Your task to perform on an android device: Open Google Chrome and click the shortcut for Amazon.com Image 0: 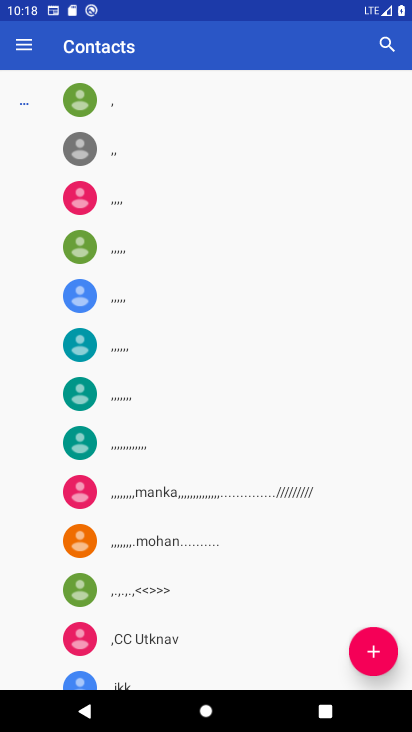
Step 0: press home button
Your task to perform on an android device: Open Google Chrome and click the shortcut for Amazon.com Image 1: 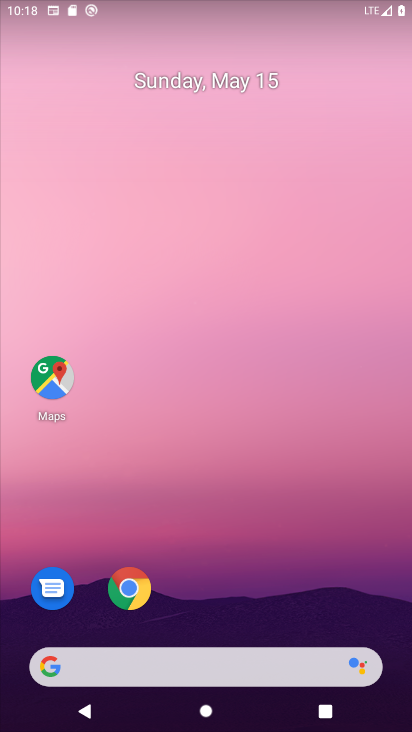
Step 1: click (127, 583)
Your task to perform on an android device: Open Google Chrome and click the shortcut for Amazon.com Image 2: 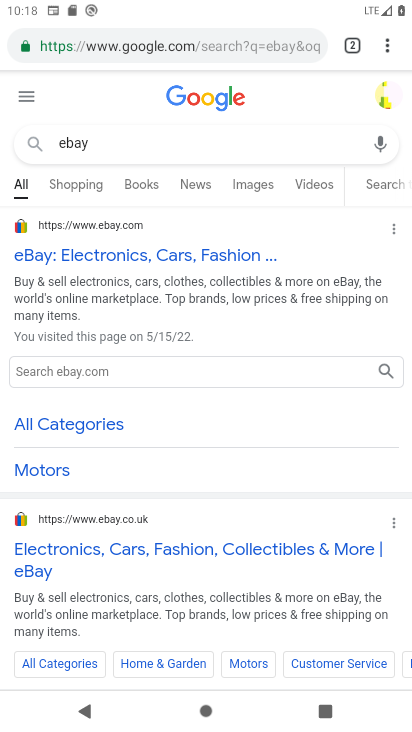
Step 2: click (354, 46)
Your task to perform on an android device: Open Google Chrome and click the shortcut for Amazon.com Image 3: 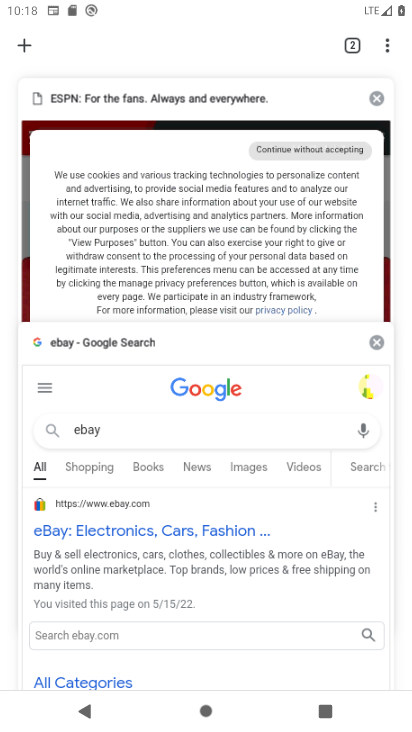
Step 3: click (27, 44)
Your task to perform on an android device: Open Google Chrome and click the shortcut for Amazon.com Image 4: 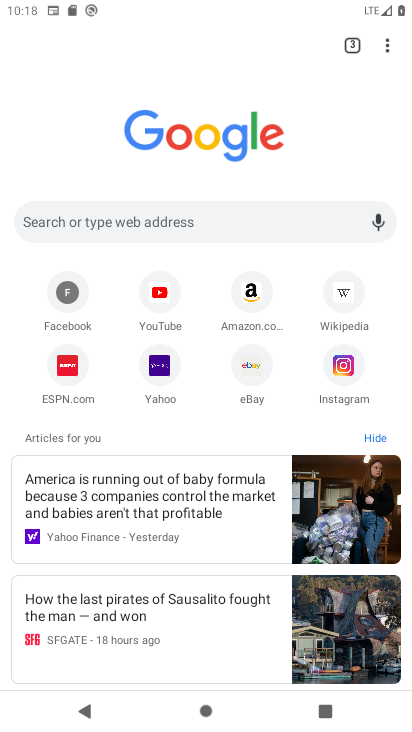
Step 4: click (257, 297)
Your task to perform on an android device: Open Google Chrome and click the shortcut for Amazon.com Image 5: 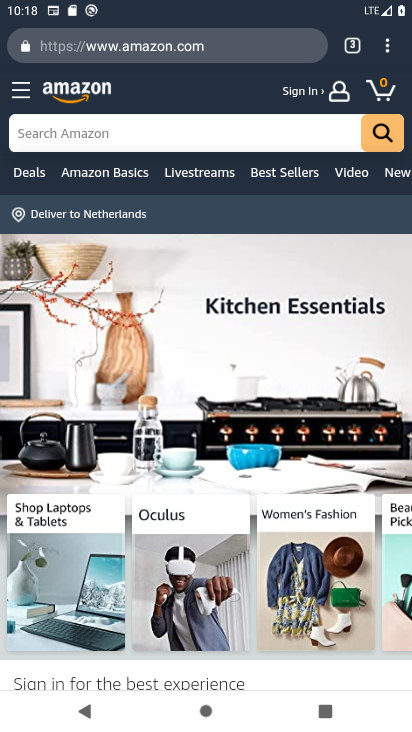
Step 5: task complete